Your task to perform on an android device: open sync settings in chrome Image 0: 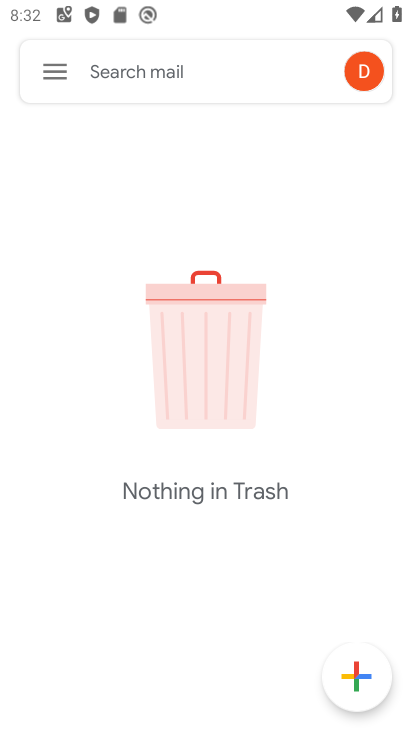
Step 0: press home button
Your task to perform on an android device: open sync settings in chrome Image 1: 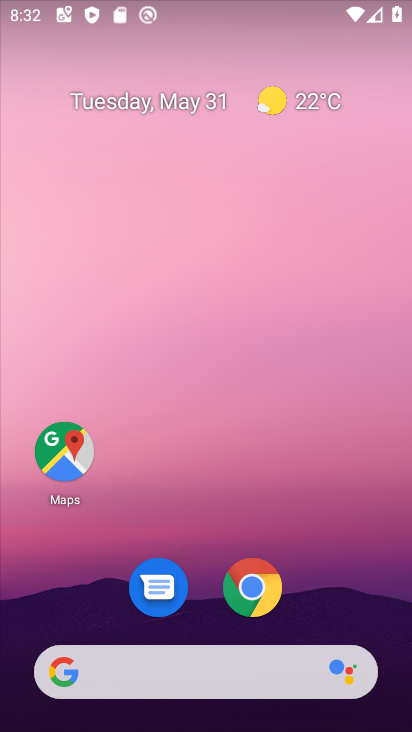
Step 1: click (258, 578)
Your task to perform on an android device: open sync settings in chrome Image 2: 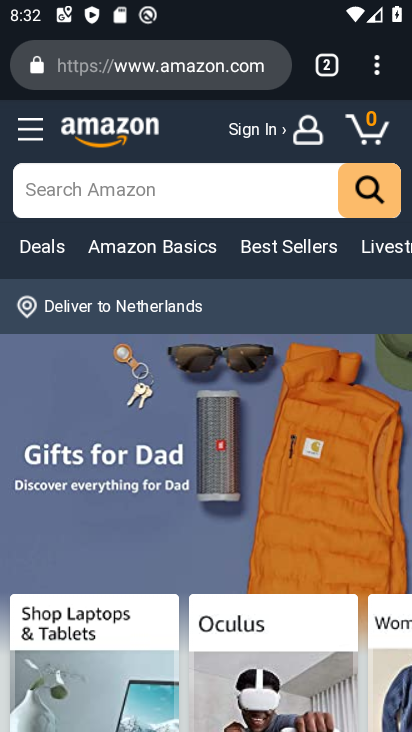
Step 2: click (389, 72)
Your task to perform on an android device: open sync settings in chrome Image 3: 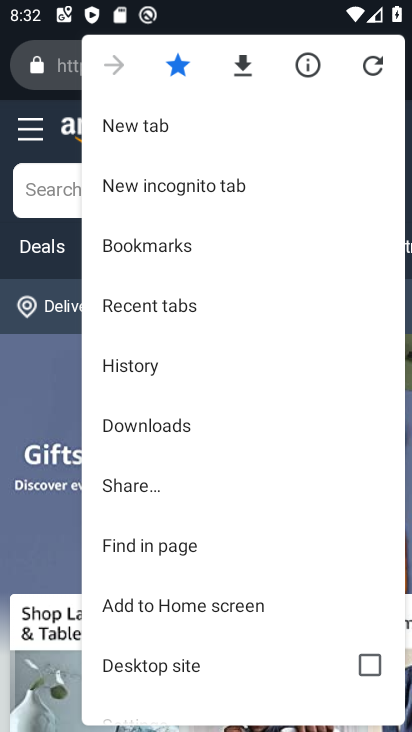
Step 3: drag from (188, 617) to (258, 106)
Your task to perform on an android device: open sync settings in chrome Image 4: 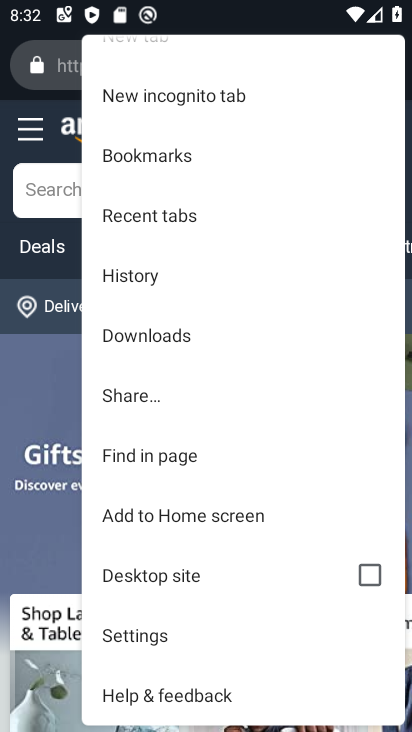
Step 4: click (199, 642)
Your task to perform on an android device: open sync settings in chrome Image 5: 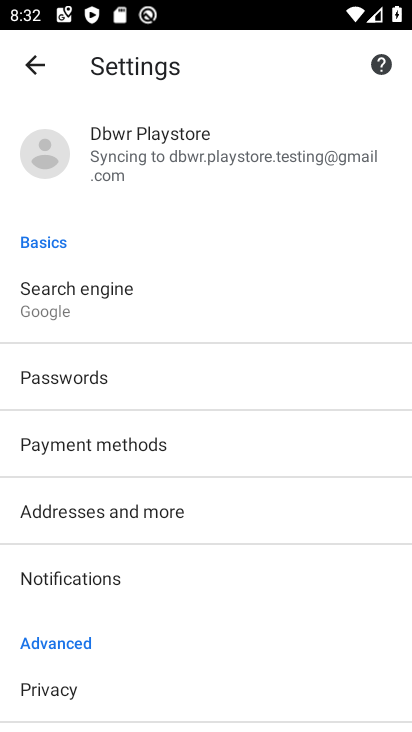
Step 5: click (135, 158)
Your task to perform on an android device: open sync settings in chrome Image 6: 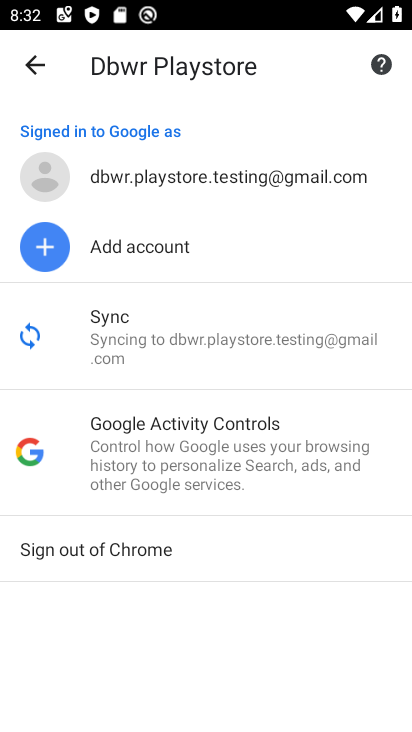
Step 6: click (113, 317)
Your task to perform on an android device: open sync settings in chrome Image 7: 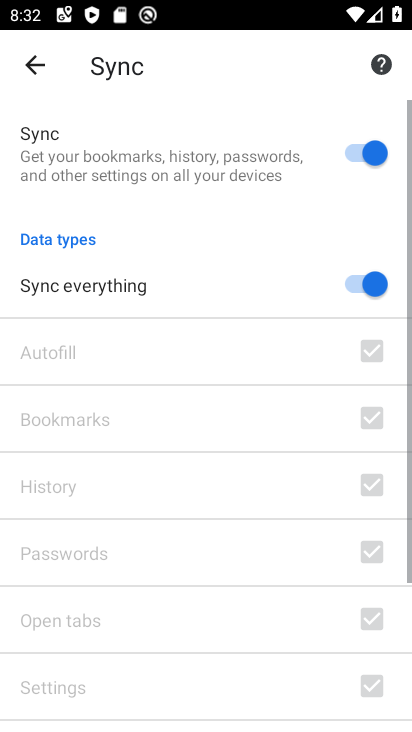
Step 7: task complete